Your task to perform on an android device: manage bookmarks in the chrome app Image 0: 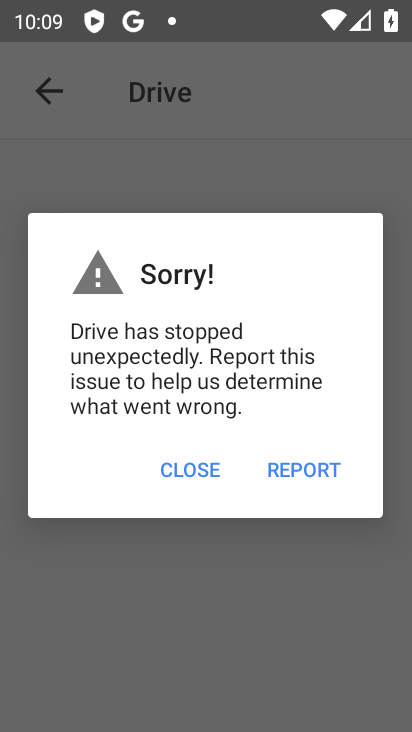
Step 0: press home button
Your task to perform on an android device: manage bookmarks in the chrome app Image 1: 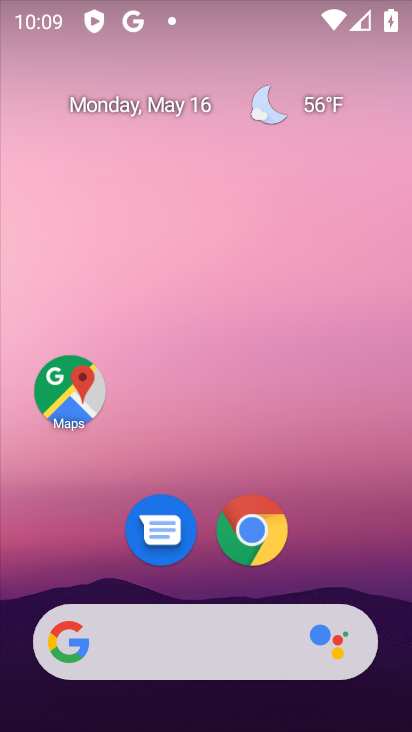
Step 1: drag from (368, 565) to (362, 123)
Your task to perform on an android device: manage bookmarks in the chrome app Image 2: 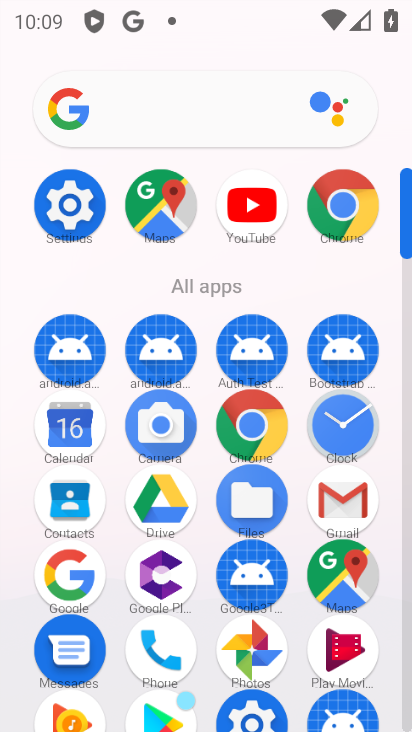
Step 2: click (354, 222)
Your task to perform on an android device: manage bookmarks in the chrome app Image 3: 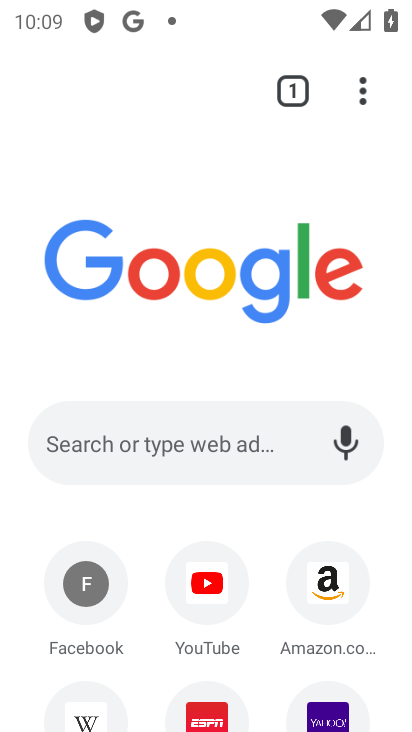
Step 3: click (365, 100)
Your task to perform on an android device: manage bookmarks in the chrome app Image 4: 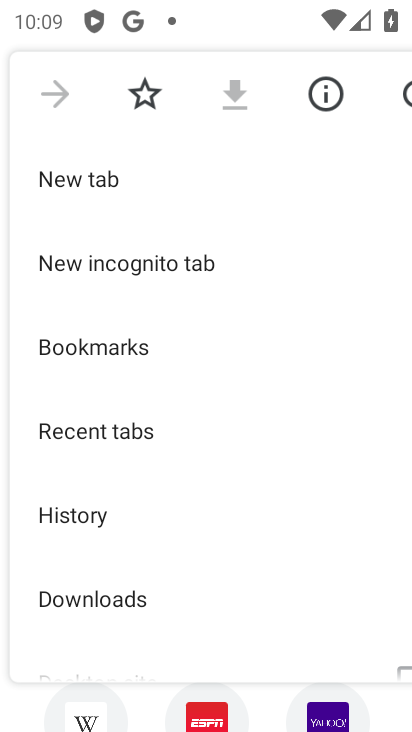
Step 4: click (138, 343)
Your task to perform on an android device: manage bookmarks in the chrome app Image 5: 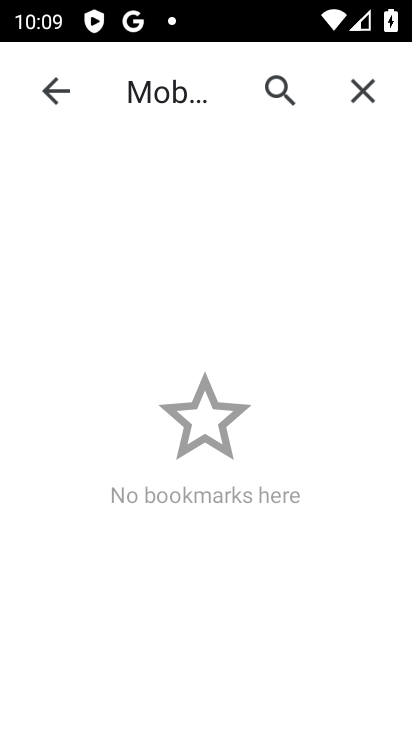
Step 5: task complete